Your task to perform on an android device: empty trash in google photos Image 0: 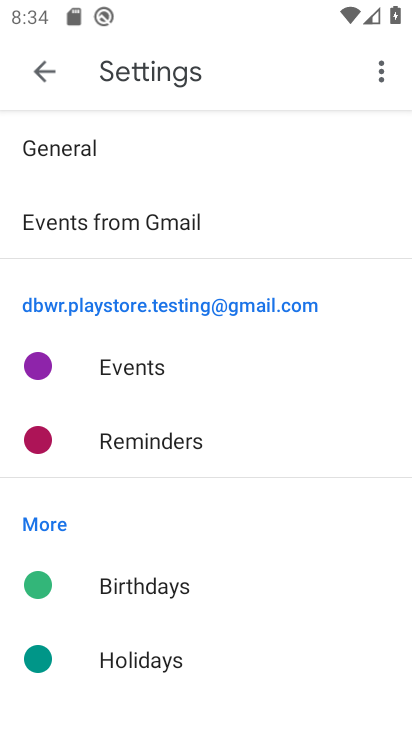
Step 0: press home button
Your task to perform on an android device: empty trash in google photos Image 1: 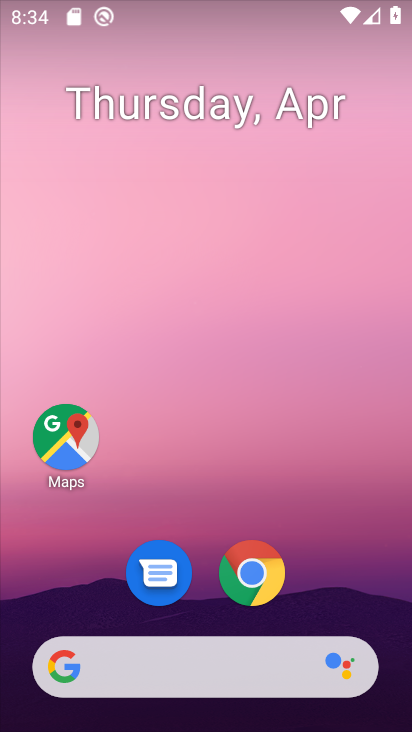
Step 1: drag from (201, 515) to (224, 47)
Your task to perform on an android device: empty trash in google photos Image 2: 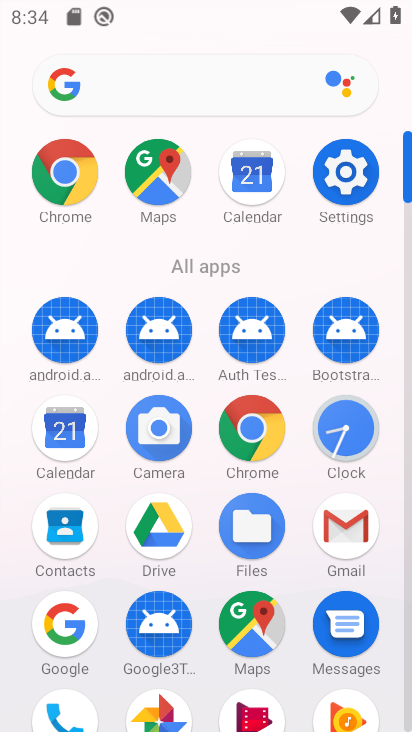
Step 2: drag from (290, 288) to (360, 56)
Your task to perform on an android device: empty trash in google photos Image 3: 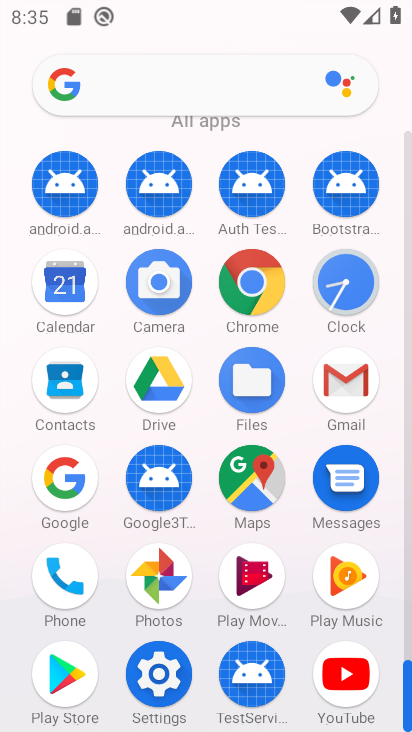
Step 3: click (159, 574)
Your task to perform on an android device: empty trash in google photos Image 4: 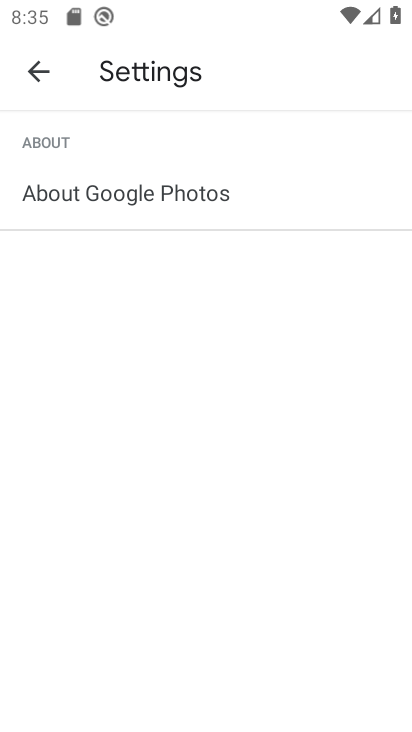
Step 4: click (40, 66)
Your task to perform on an android device: empty trash in google photos Image 5: 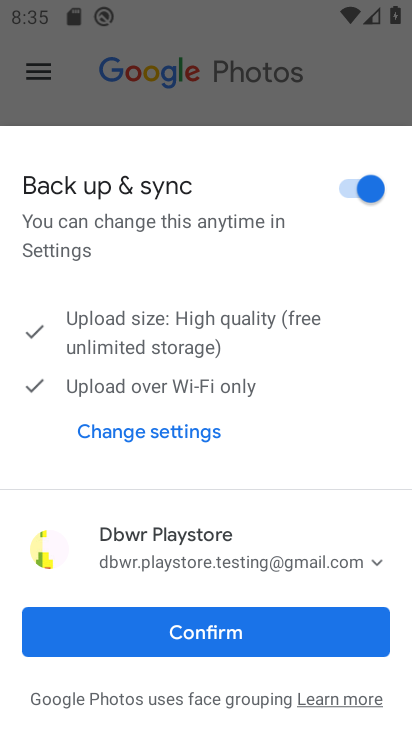
Step 5: click (201, 631)
Your task to perform on an android device: empty trash in google photos Image 6: 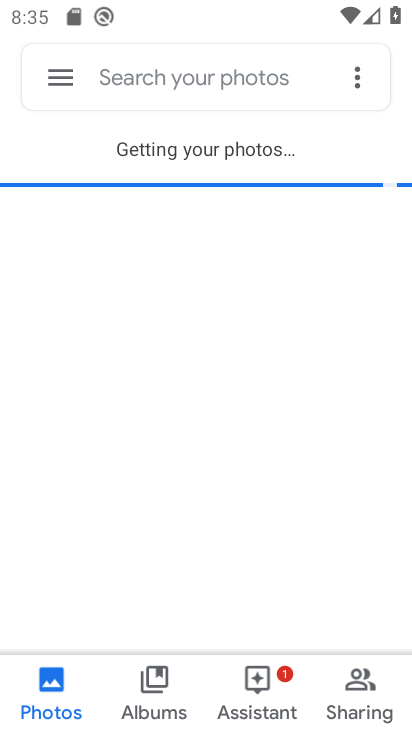
Step 6: click (62, 80)
Your task to perform on an android device: empty trash in google photos Image 7: 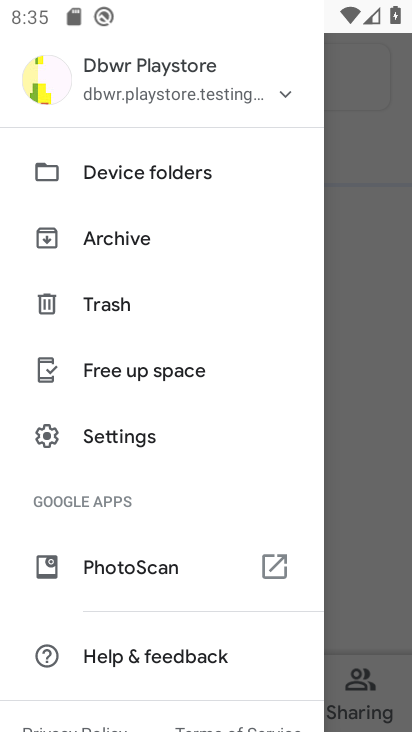
Step 7: click (108, 301)
Your task to perform on an android device: empty trash in google photos Image 8: 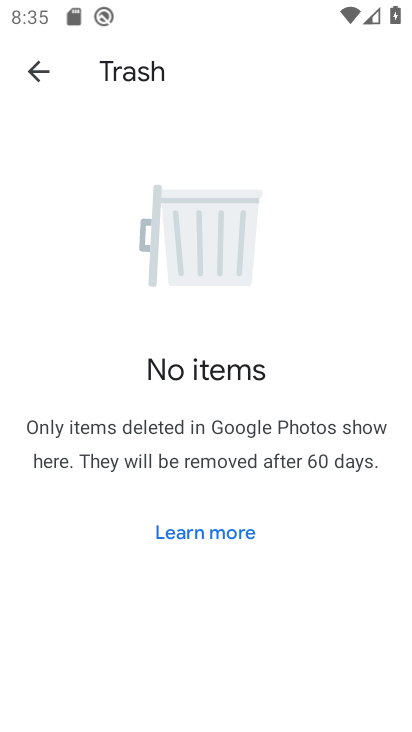
Step 8: task complete